Your task to perform on an android device: allow notifications from all sites in the chrome app Image 0: 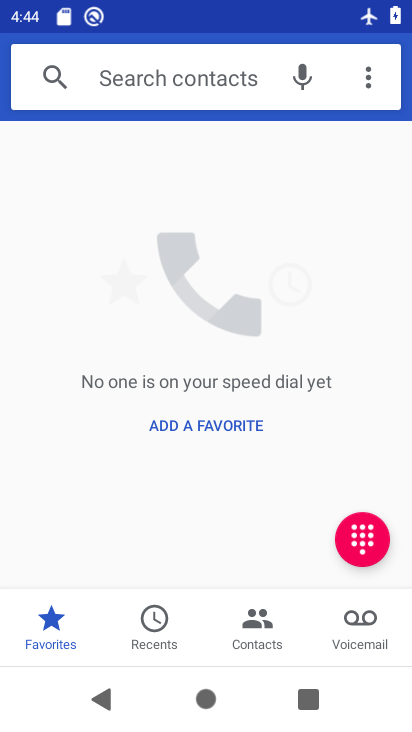
Step 0: press home button
Your task to perform on an android device: allow notifications from all sites in the chrome app Image 1: 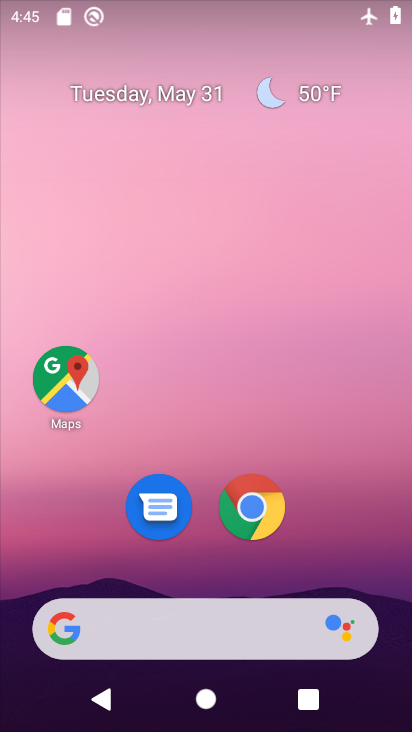
Step 1: click (263, 517)
Your task to perform on an android device: allow notifications from all sites in the chrome app Image 2: 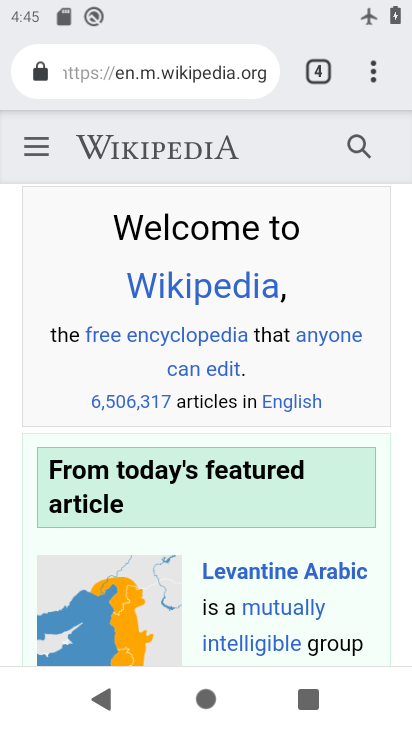
Step 2: click (369, 60)
Your task to perform on an android device: allow notifications from all sites in the chrome app Image 3: 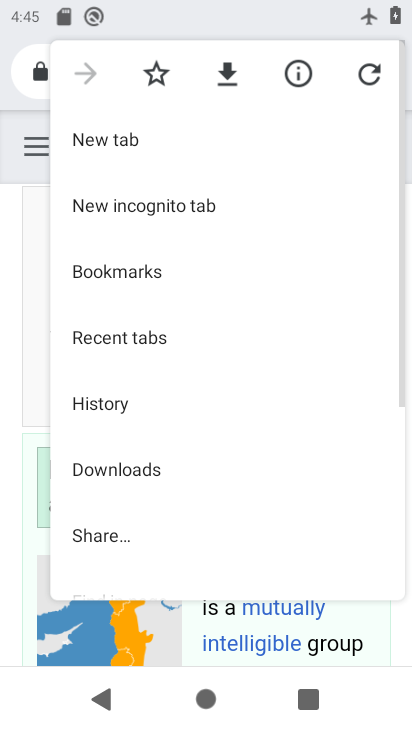
Step 3: drag from (317, 465) to (291, 163)
Your task to perform on an android device: allow notifications from all sites in the chrome app Image 4: 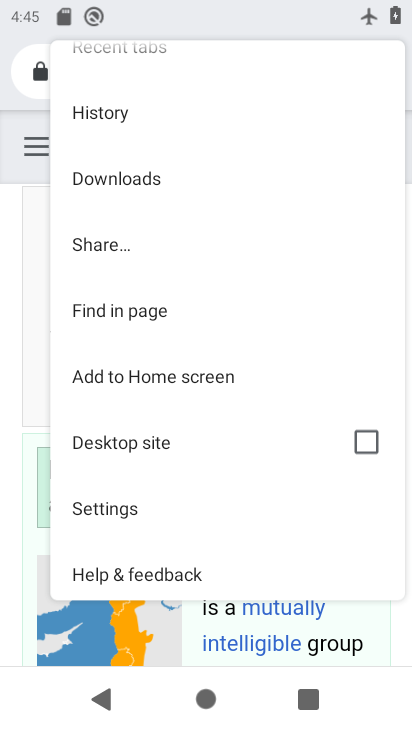
Step 4: click (129, 511)
Your task to perform on an android device: allow notifications from all sites in the chrome app Image 5: 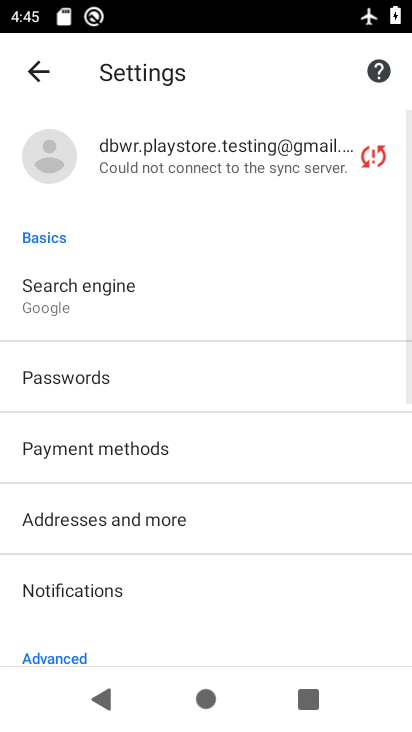
Step 5: click (270, 567)
Your task to perform on an android device: allow notifications from all sites in the chrome app Image 6: 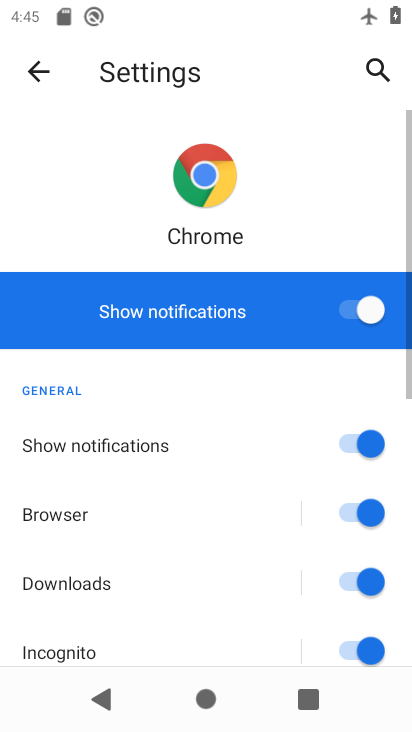
Step 6: task complete